Your task to perform on an android device: Open calendar and show me the fourth week of next month Image 0: 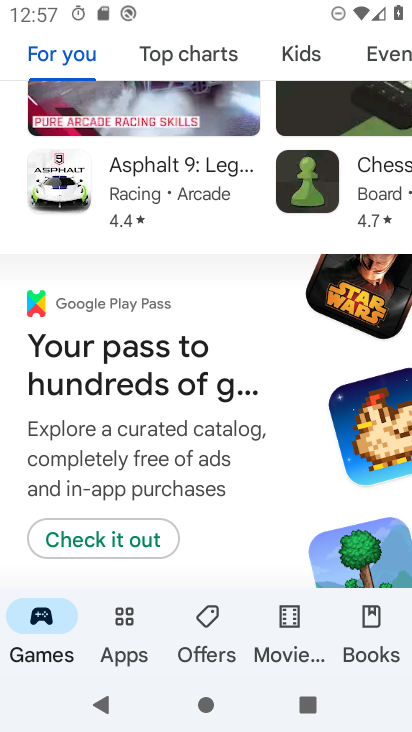
Step 0: press home button
Your task to perform on an android device: Open calendar and show me the fourth week of next month Image 1: 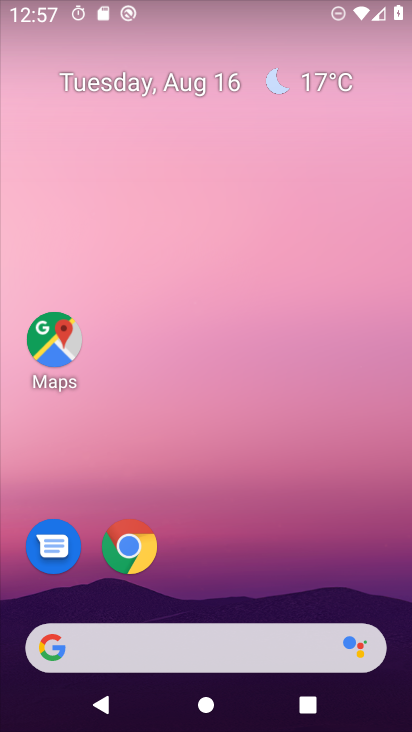
Step 1: drag from (229, 605) to (221, 132)
Your task to perform on an android device: Open calendar and show me the fourth week of next month Image 2: 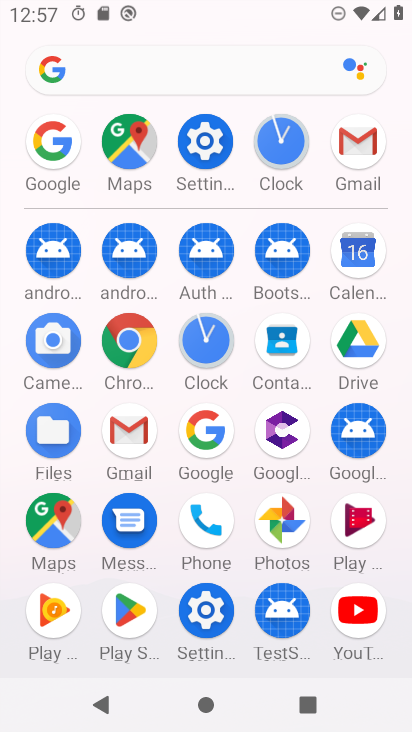
Step 2: click (352, 250)
Your task to perform on an android device: Open calendar and show me the fourth week of next month Image 3: 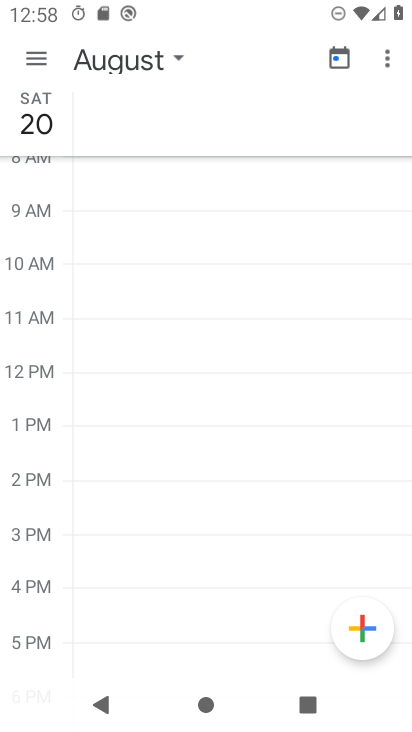
Step 3: click (176, 51)
Your task to perform on an android device: Open calendar and show me the fourth week of next month Image 4: 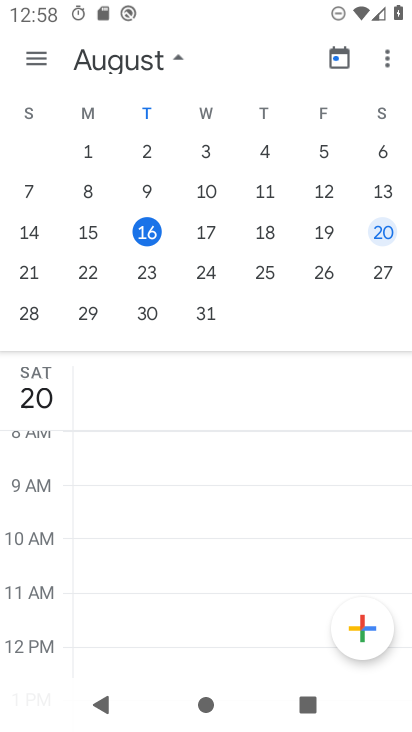
Step 4: drag from (387, 223) to (3, 216)
Your task to perform on an android device: Open calendar and show me the fourth week of next month Image 5: 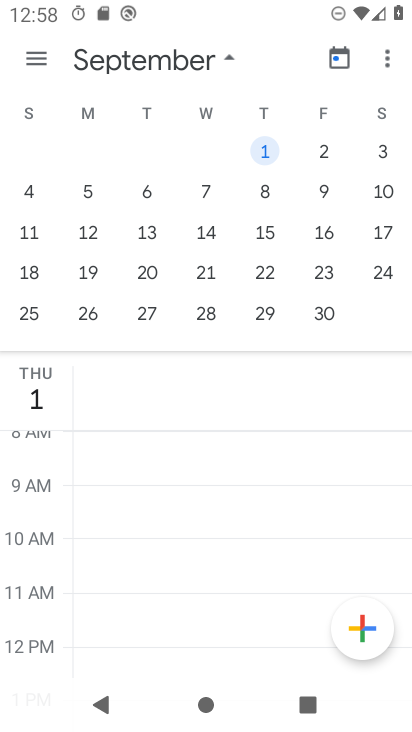
Step 5: click (89, 310)
Your task to perform on an android device: Open calendar and show me the fourth week of next month Image 6: 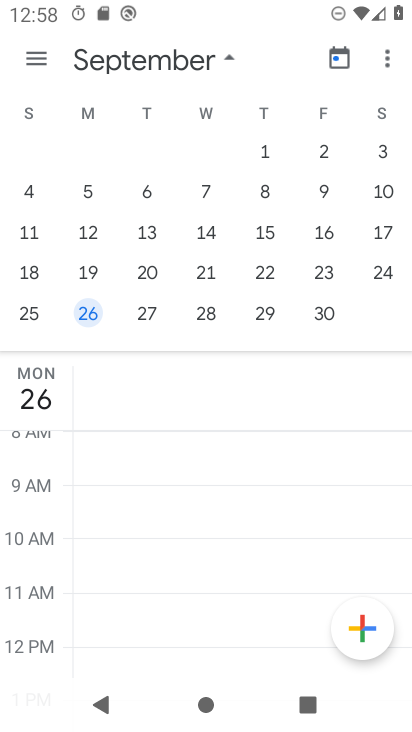
Step 6: click (31, 58)
Your task to perform on an android device: Open calendar and show me the fourth week of next month Image 7: 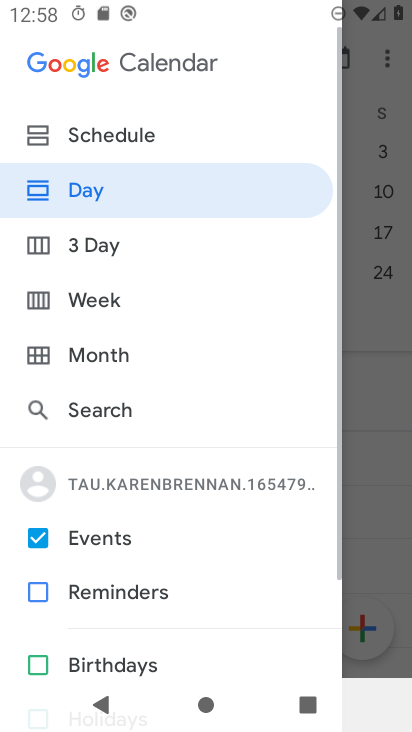
Step 7: click (110, 301)
Your task to perform on an android device: Open calendar and show me the fourth week of next month Image 8: 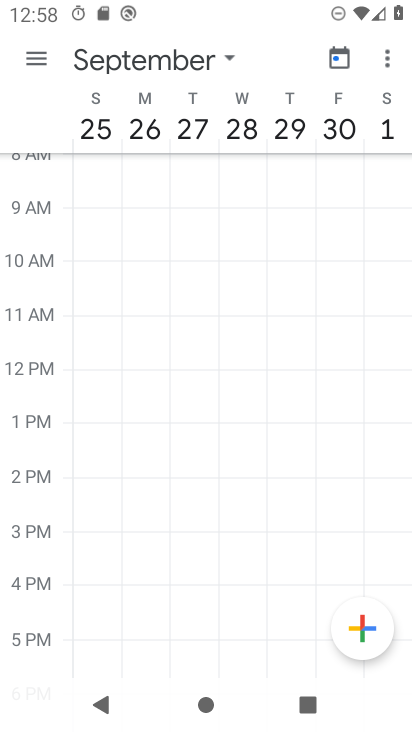
Step 8: task complete